Your task to perform on an android device: Go to eBay Image 0: 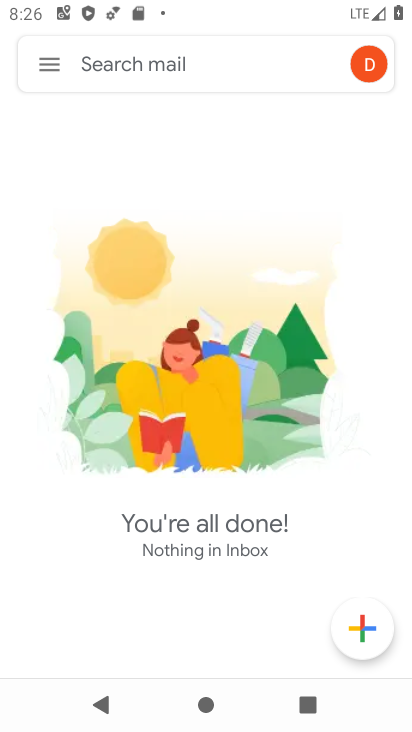
Step 0: press home button
Your task to perform on an android device: Go to eBay Image 1: 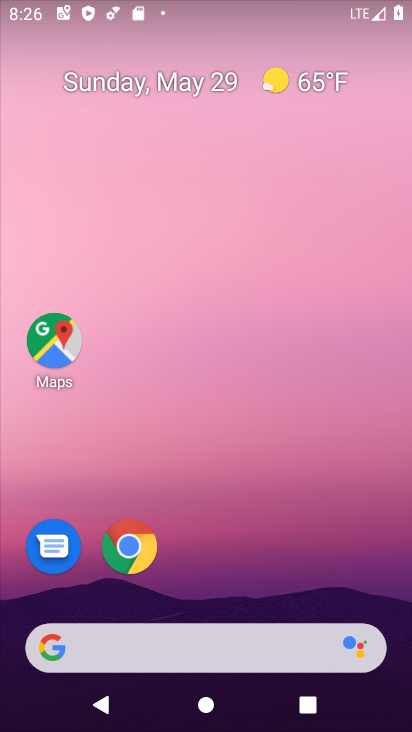
Step 1: click (133, 539)
Your task to perform on an android device: Go to eBay Image 2: 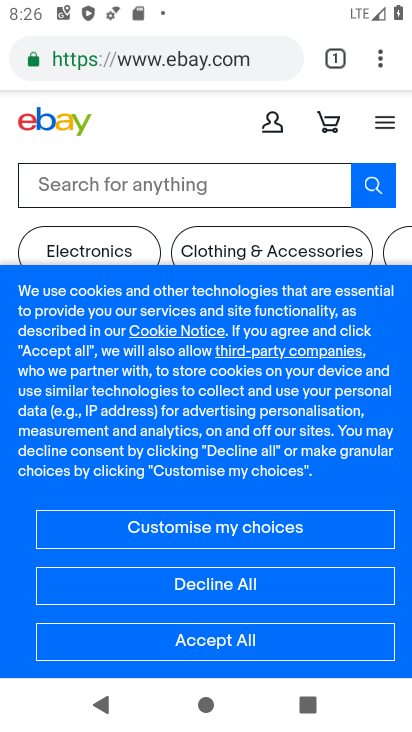
Step 2: task complete